Your task to perform on an android device: install app "Adobe Express: Graphic Design" Image 0: 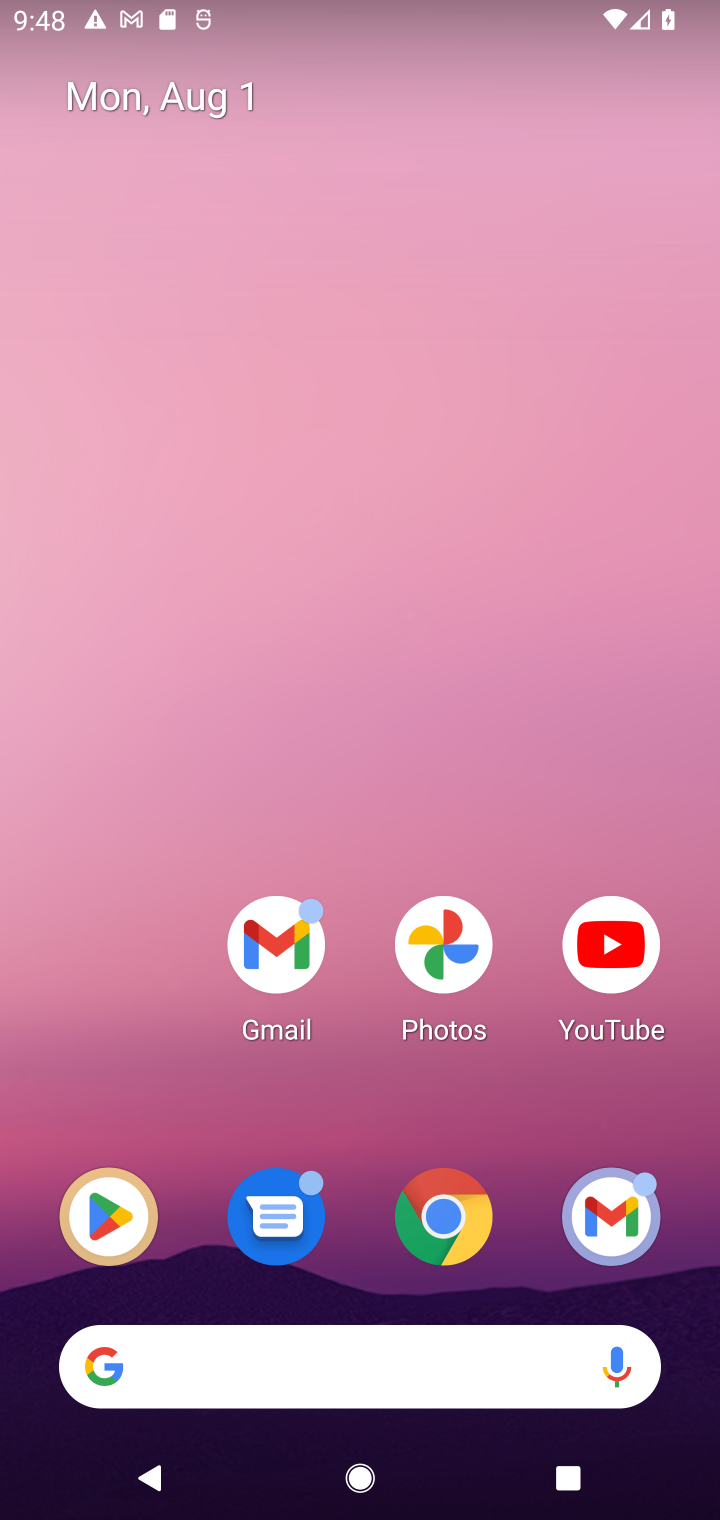
Step 0: click (108, 1235)
Your task to perform on an android device: install app "Adobe Express: Graphic Design" Image 1: 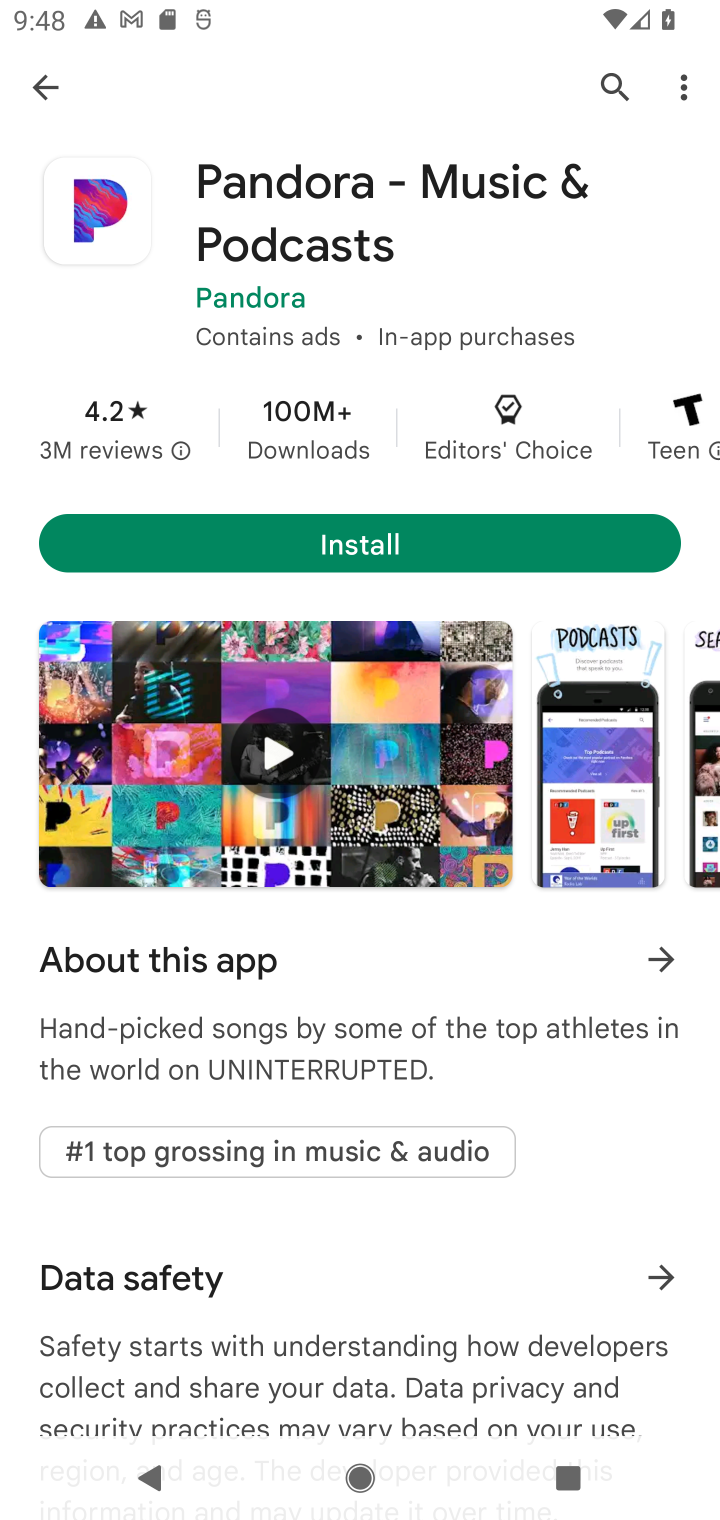
Step 1: click (603, 104)
Your task to perform on an android device: install app "Adobe Express: Graphic Design" Image 2: 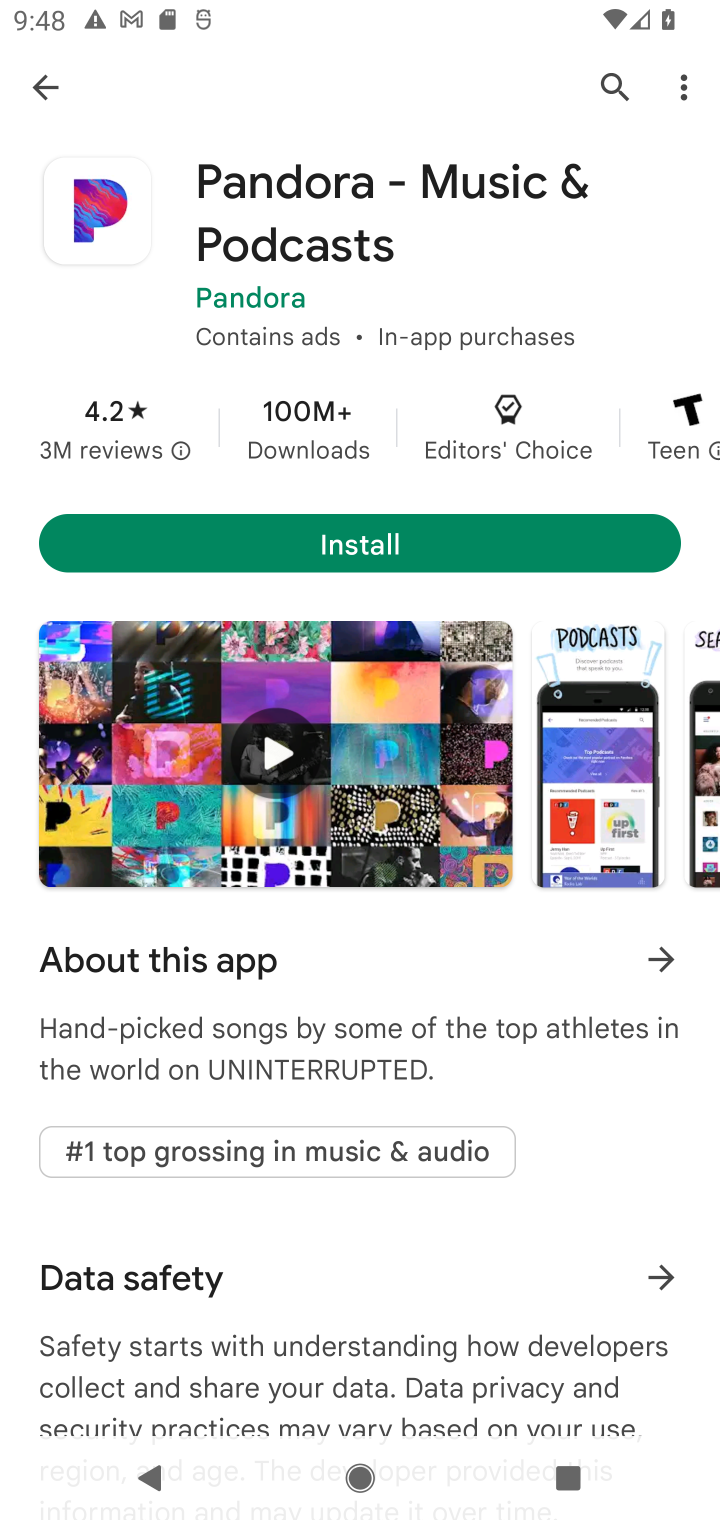
Step 2: click (610, 87)
Your task to perform on an android device: install app "Adobe Express: Graphic Design" Image 3: 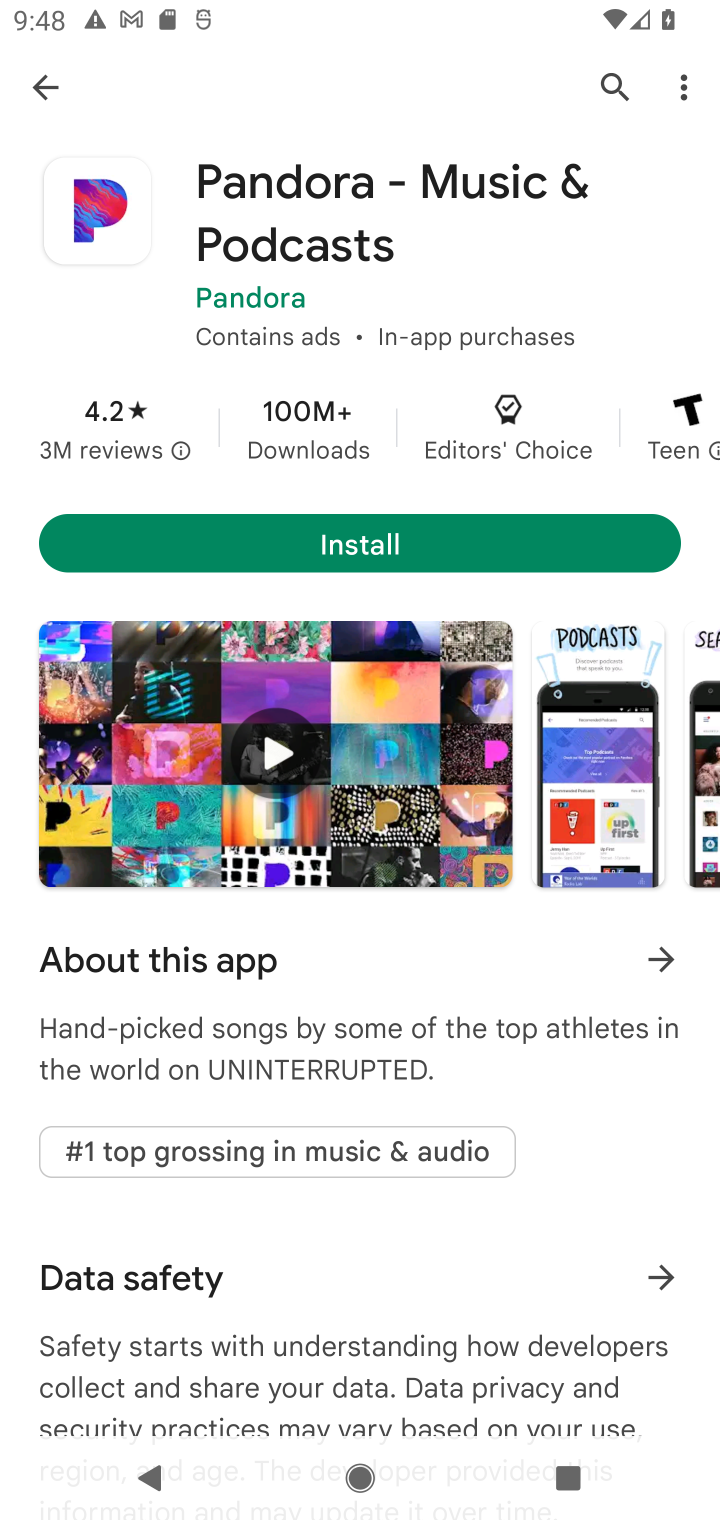
Step 3: click (599, 85)
Your task to perform on an android device: install app "Adobe Express: Graphic Design" Image 4: 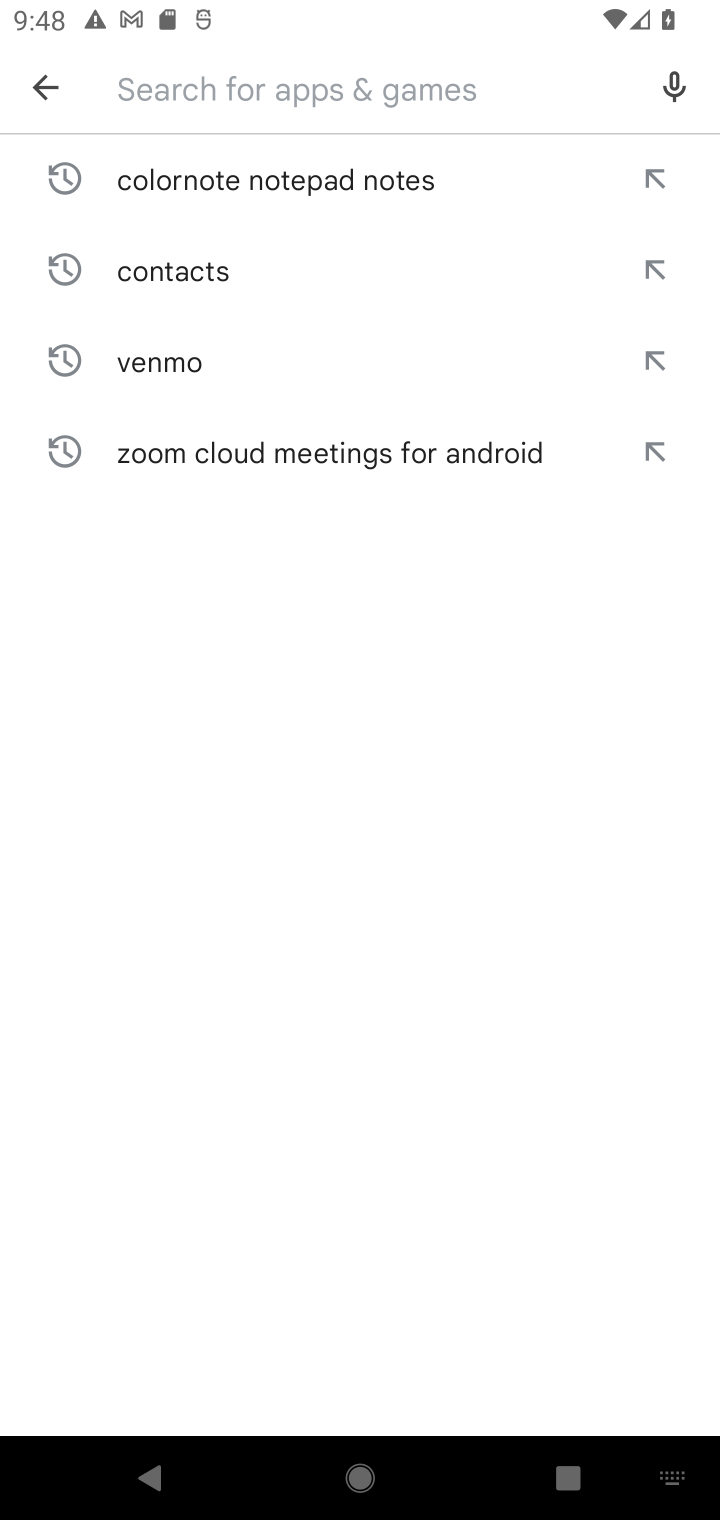
Step 4: type "Adobe Express: Graphic Design"
Your task to perform on an android device: install app "Adobe Express: Graphic Design" Image 5: 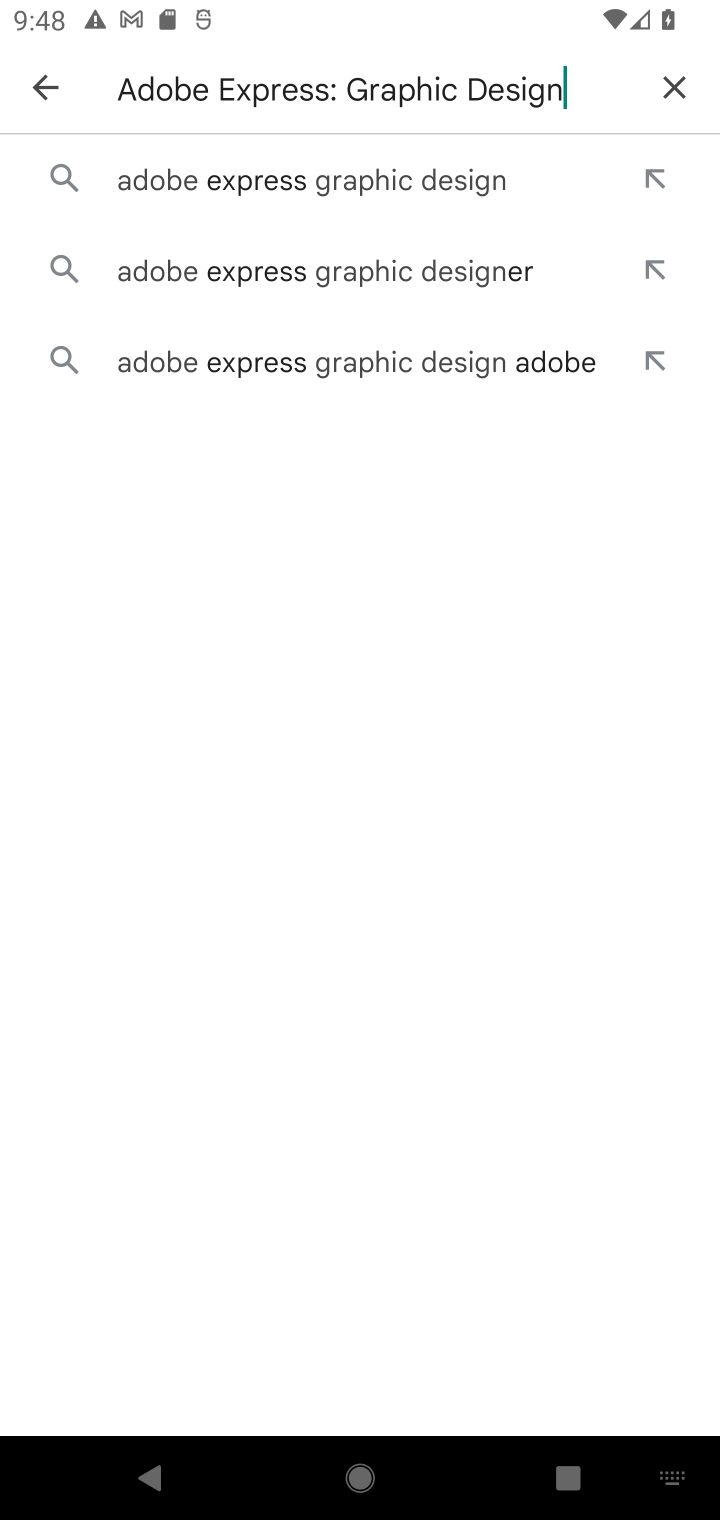
Step 5: click (312, 198)
Your task to perform on an android device: install app "Adobe Express: Graphic Design" Image 6: 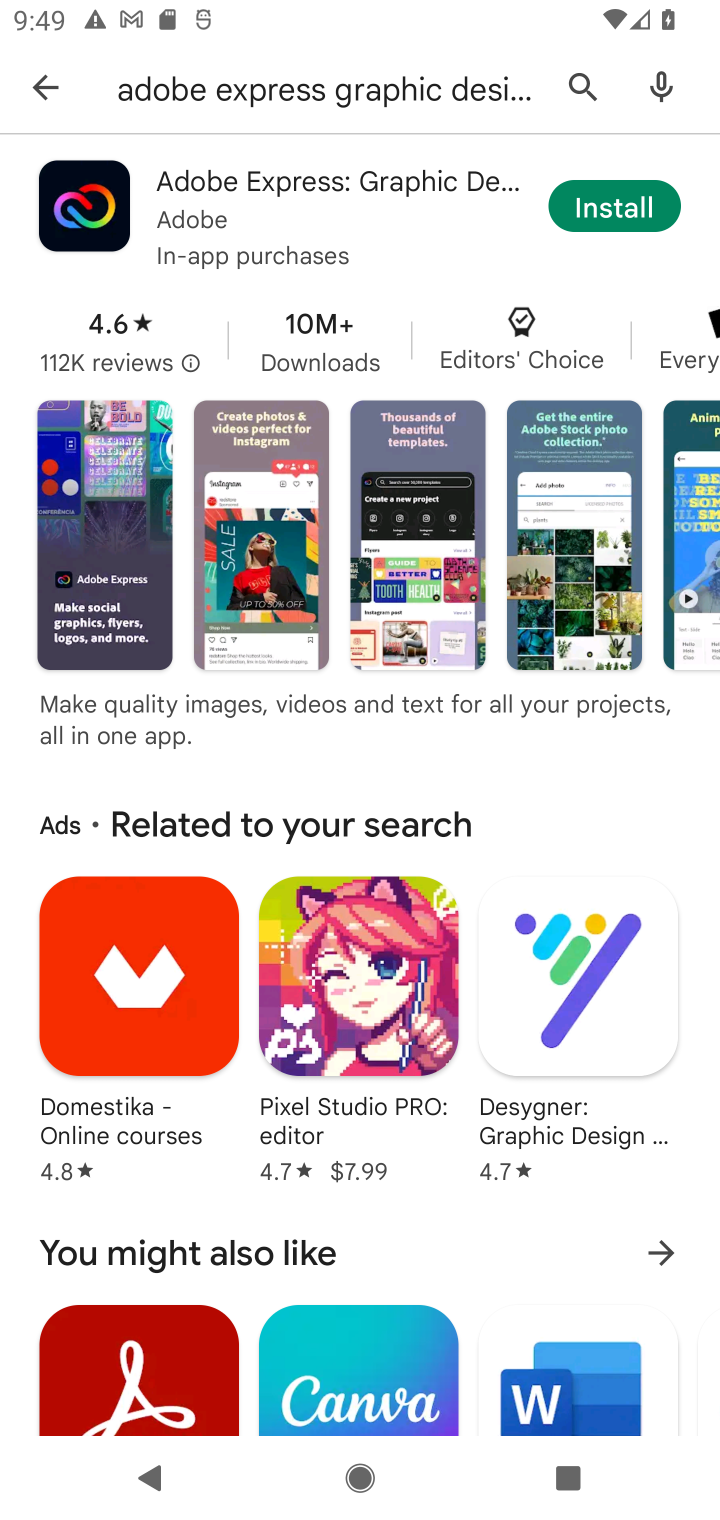
Step 6: click (619, 206)
Your task to perform on an android device: install app "Adobe Express: Graphic Design" Image 7: 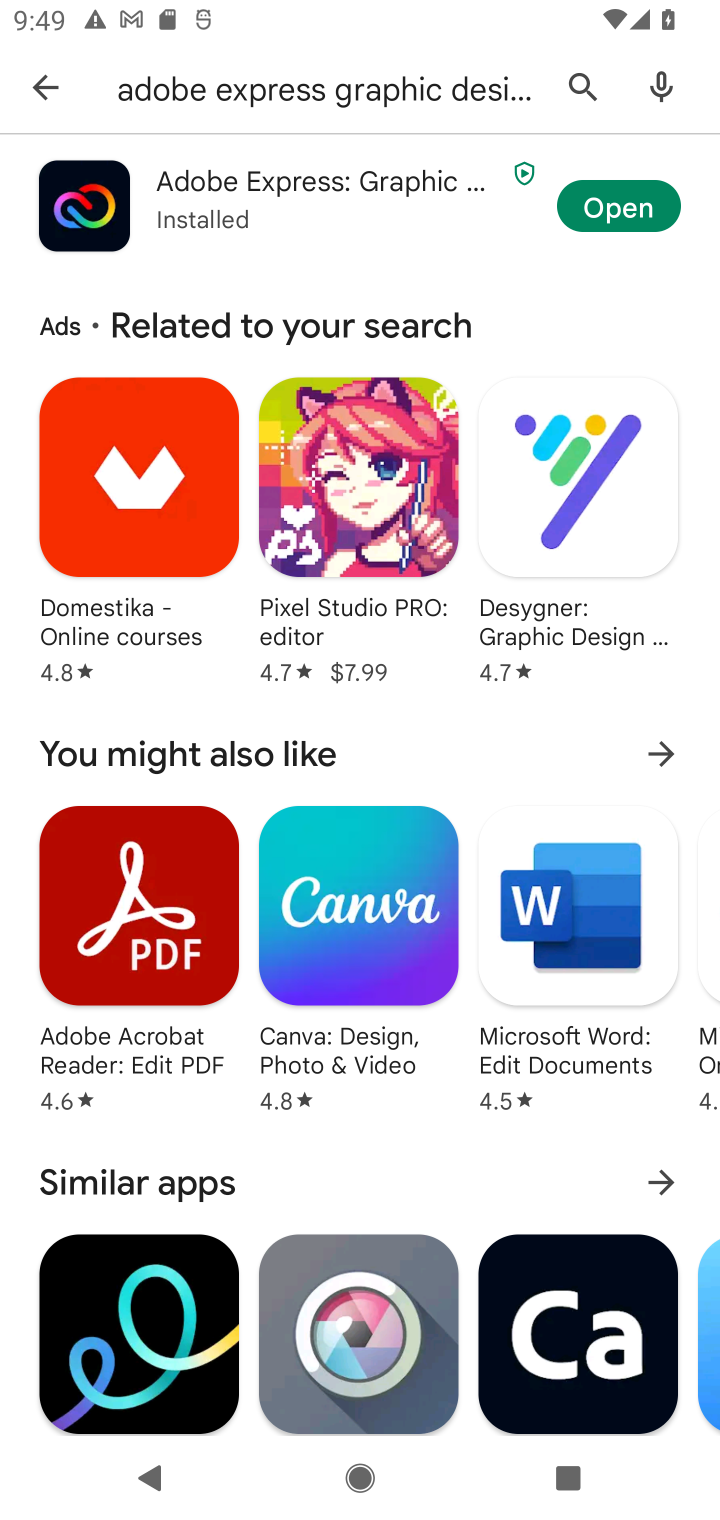
Step 7: task complete